Your task to perform on an android device: move an email to a new category in the gmail app Image 0: 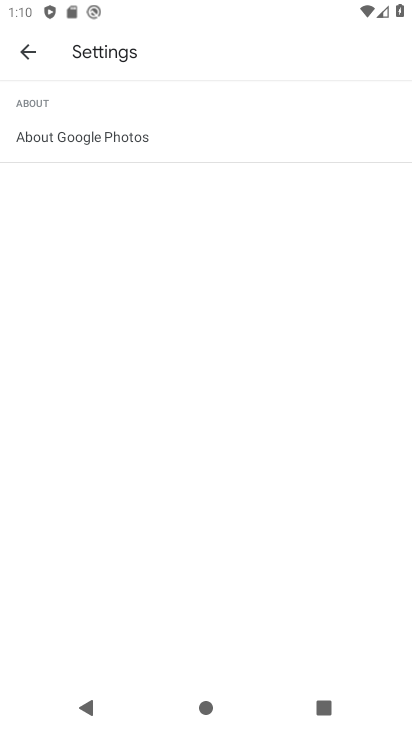
Step 0: press home button
Your task to perform on an android device: move an email to a new category in the gmail app Image 1: 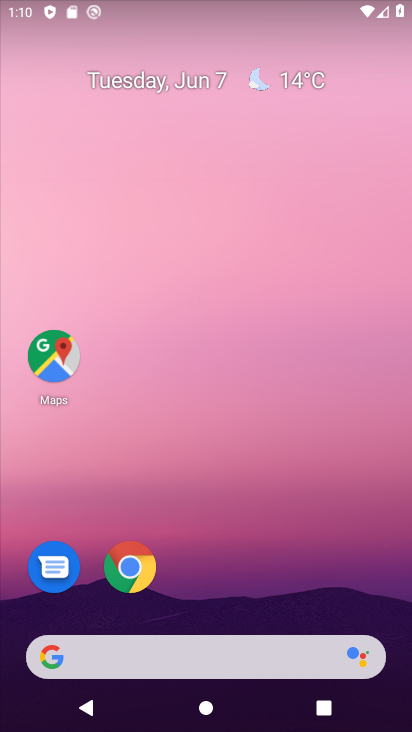
Step 1: drag from (211, 590) to (224, 93)
Your task to perform on an android device: move an email to a new category in the gmail app Image 2: 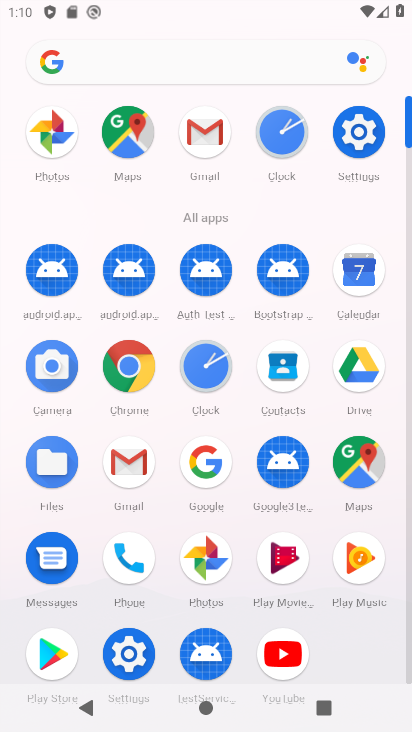
Step 2: click (129, 451)
Your task to perform on an android device: move an email to a new category in the gmail app Image 3: 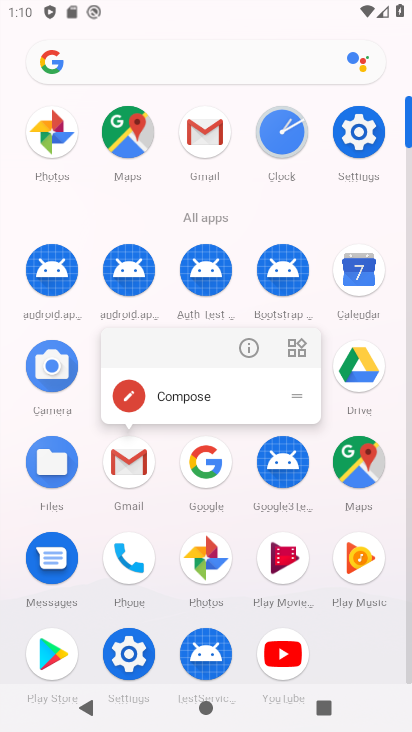
Step 3: click (130, 457)
Your task to perform on an android device: move an email to a new category in the gmail app Image 4: 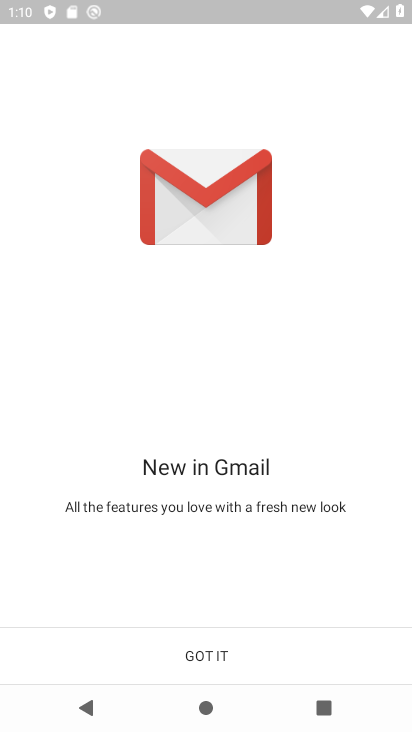
Step 4: click (210, 640)
Your task to perform on an android device: move an email to a new category in the gmail app Image 5: 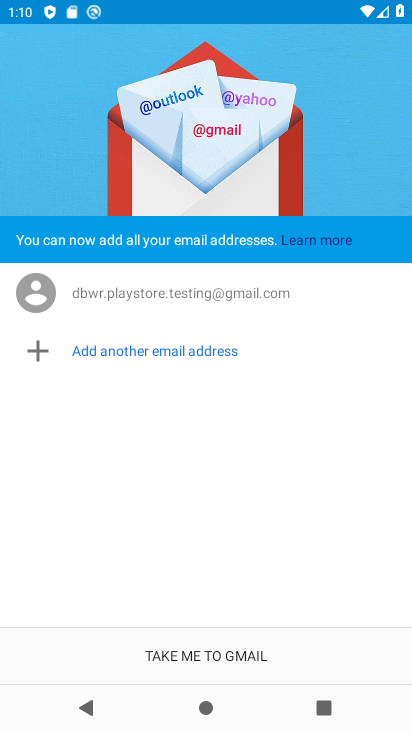
Step 5: click (222, 656)
Your task to perform on an android device: move an email to a new category in the gmail app Image 6: 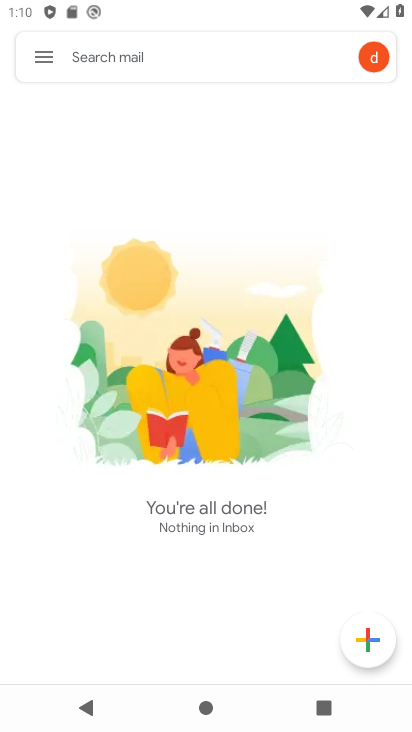
Step 6: click (40, 58)
Your task to perform on an android device: move an email to a new category in the gmail app Image 7: 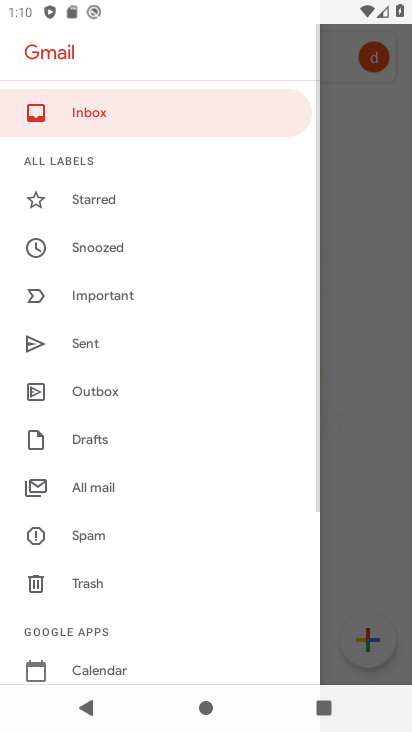
Step 7: drag from (139, 555) to (129, 152)
Your task to perform on an android device: move an email to a new category in the gmail app Image 8: 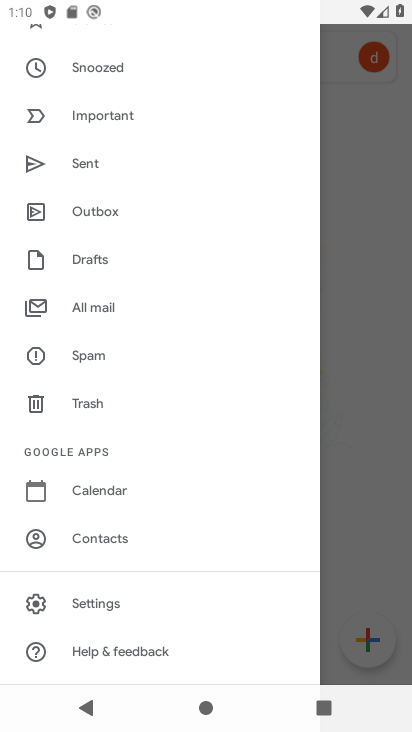
Step 8: click (107, 595)
Your task to perform on an android device: move an email to a new category in the gmail app Image 9: 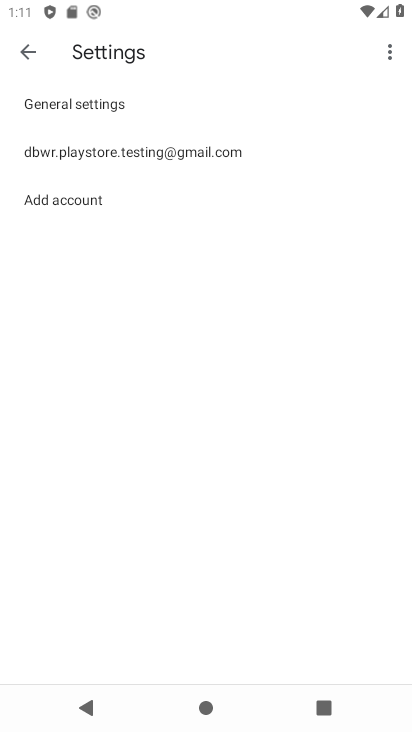
Step 9: press back button
Your task to perform on an android device: move an email to a new category in the gmail app Image 10: 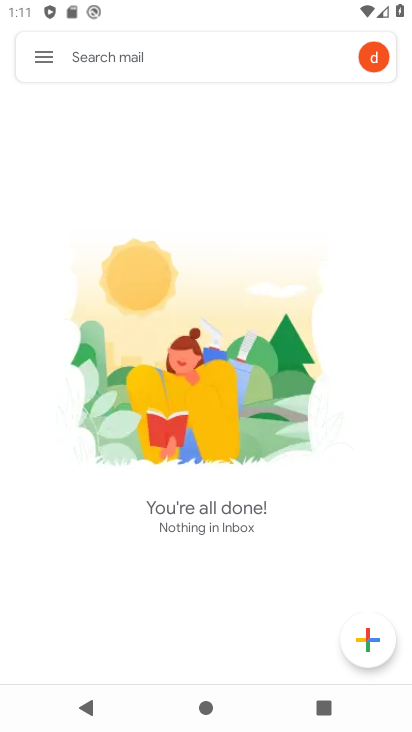
Step 10: click (46, 55)
Your task to perform on an android device: move an email to a new category in the gmail app Image 11: 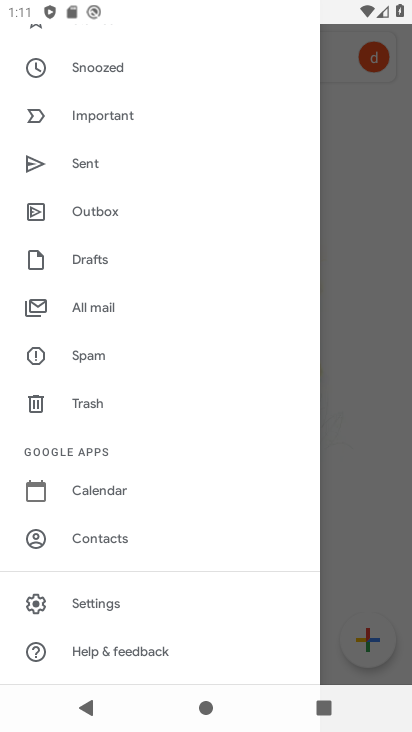
Step 11: click (111, 297)
Your task to perform on an android device: move an email to a new category in the gmail app Image 12: 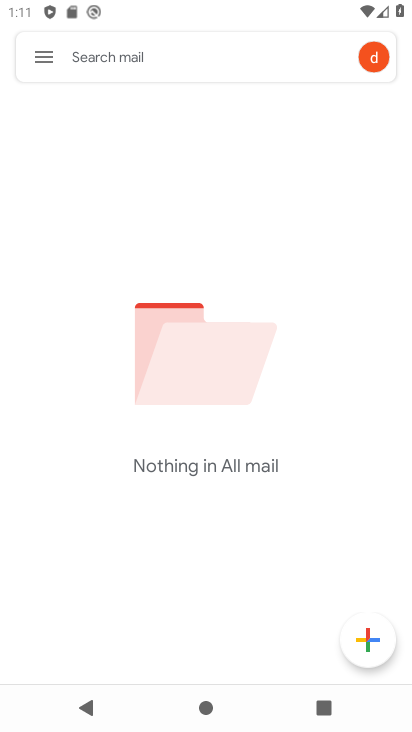
Step 12: task complete